Your task to perform on an android device: delete location history Image 0: 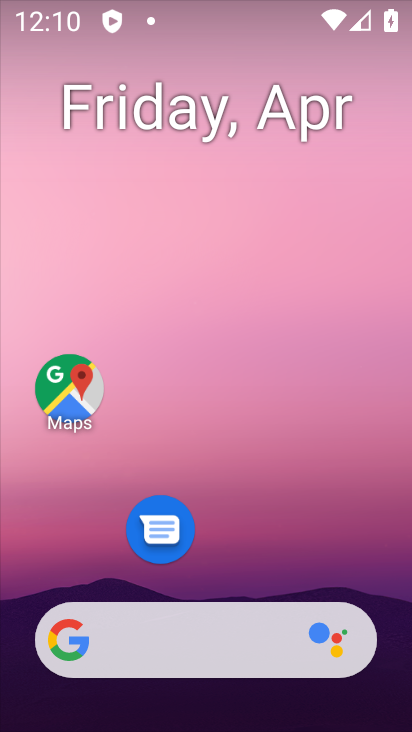
Step 0: click (337, 199)
Your task to perform on an android device: delete location history Image 1: 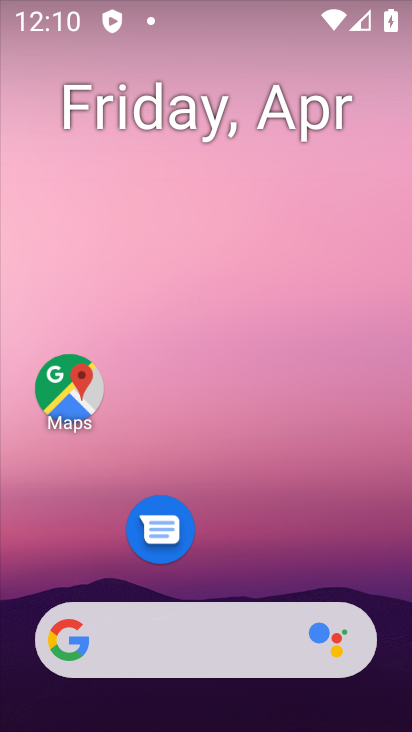
Step 1: drag from (217, 593) to (196, 0)
Your task to perform on an android device: delete location history Image 2: 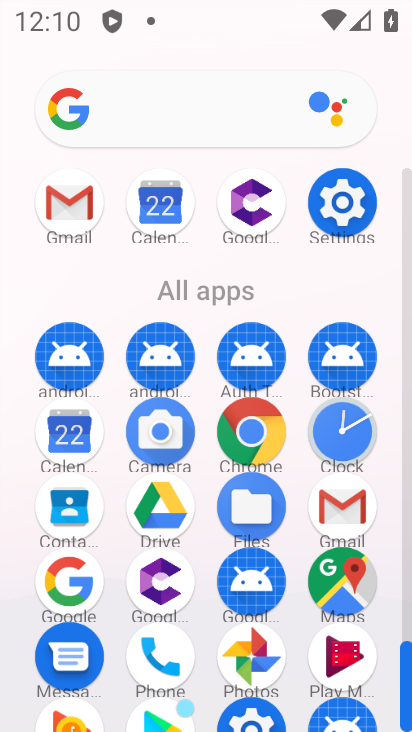
Step 2: click (355, 584)
Your task to perform on an android device: delete location history Image 3: 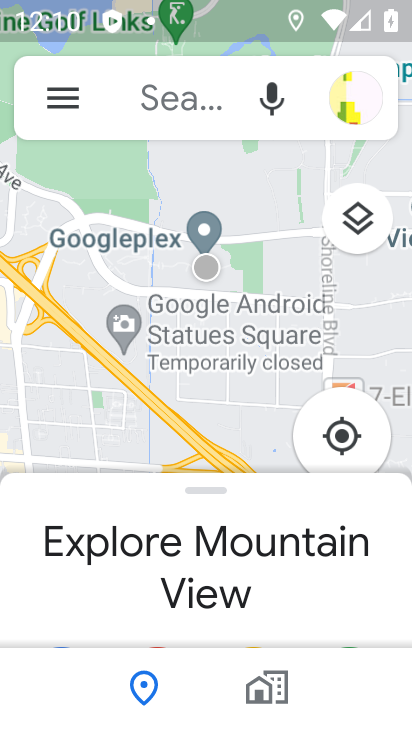
Step 3: click (55, 99)
Your task to perform on an android device: delete location history Image 4: 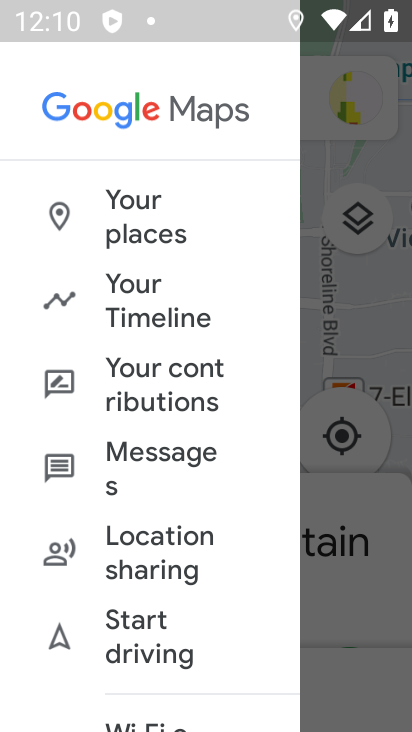
Step 4: click (178, 307)
Your task to perform on an android device: delete location history Image 5: 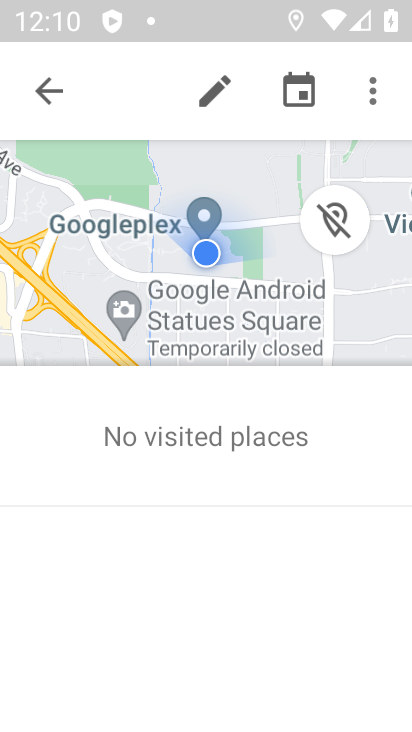
Step 5: click (380, 72)
Your task to perform on an android device: delete location history Image 6: 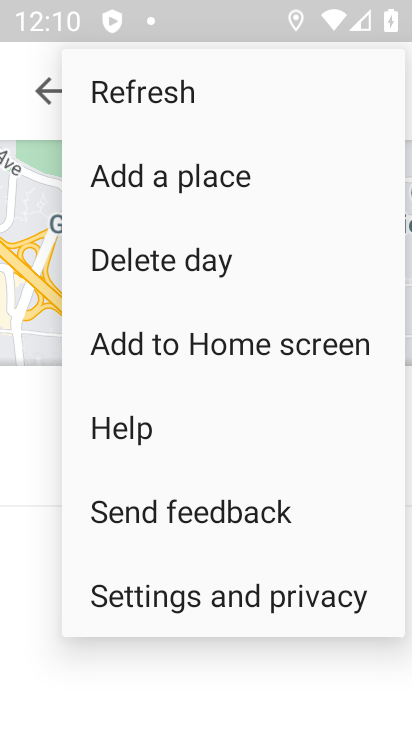
Step 6: click (181, 601)
Your task to perform on an android device: delete location history Image 7: 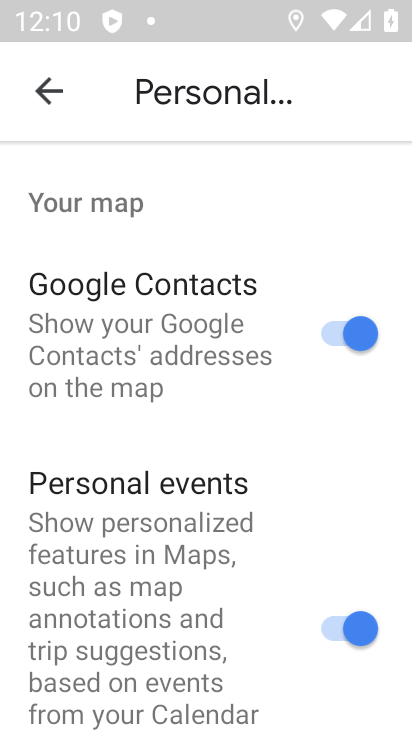
Step 7: drag from (147, 629) to (201, 219)
Your task to perform on an android device: delete location history Image 8: 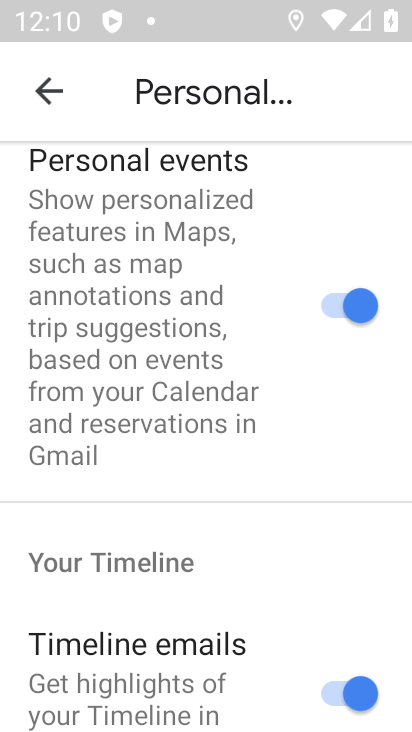
Step 8: drag from (117, 629) to (187, 271)
Your task to perform on an android device: delete location history Image 9: 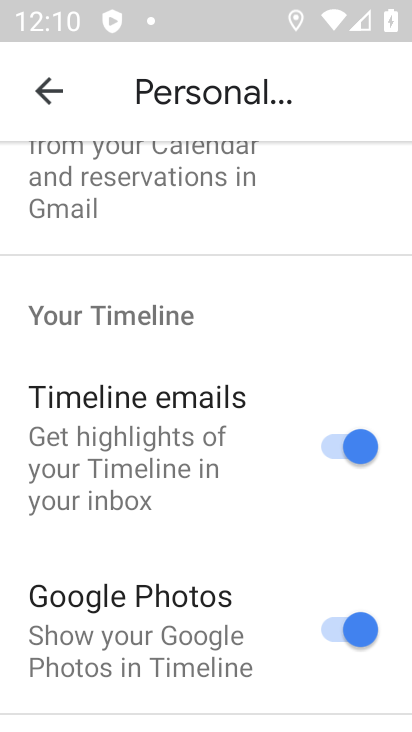
Step 9: drag from (154, 668) to (244, 189)
Your task to perform on an android device: delete location history Image 10: 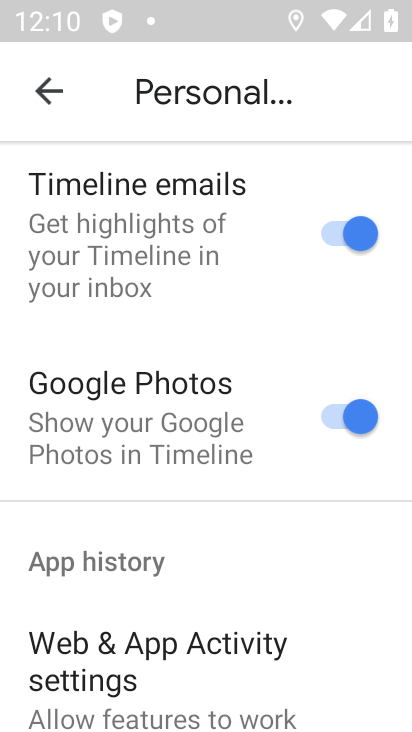
Step 10: drag from (164, 575) to (229, 129)
Your task to perform on an android device: delete location history Image 11: 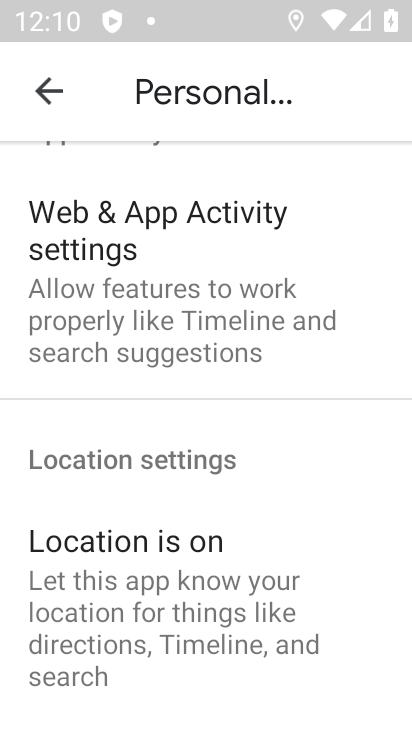
Step 11: drag from (153, 480) to (237, 151)
Your task to perform on an android device: delete location history Image 12: 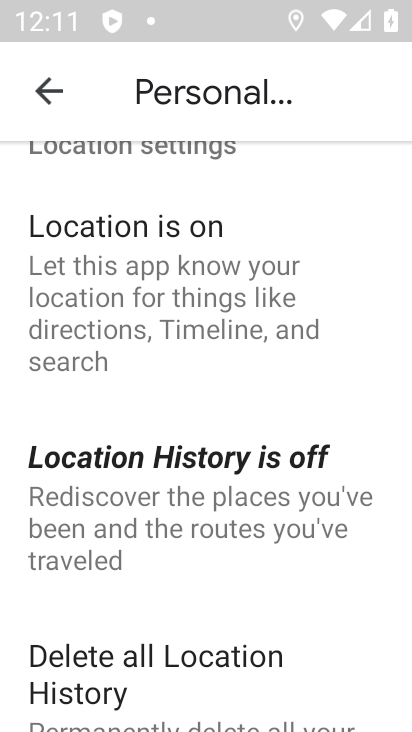
Step 12: click (142, 661)
Your task to perform on an android device: delete location history Image 13: 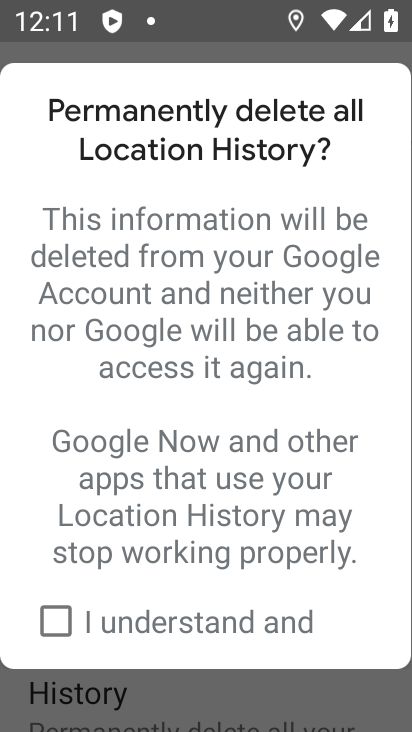
Step 13: click (43, 617)
Your task to perform on an android device: delete location history Image 14: 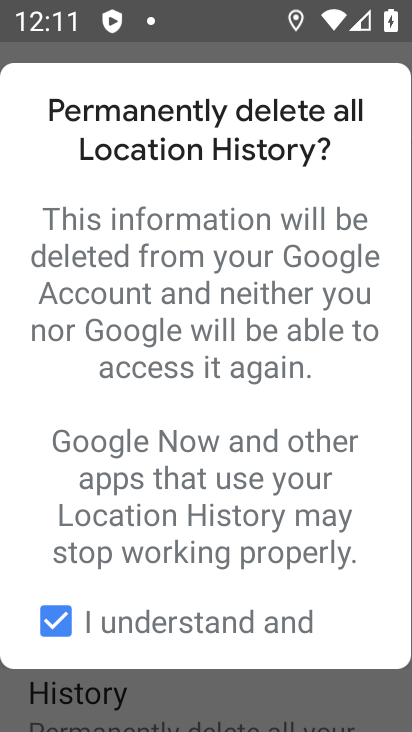
Step 14: drag from (374, 611) to (354, 690)
Your task to perform on an android device: delete location history Image 15: 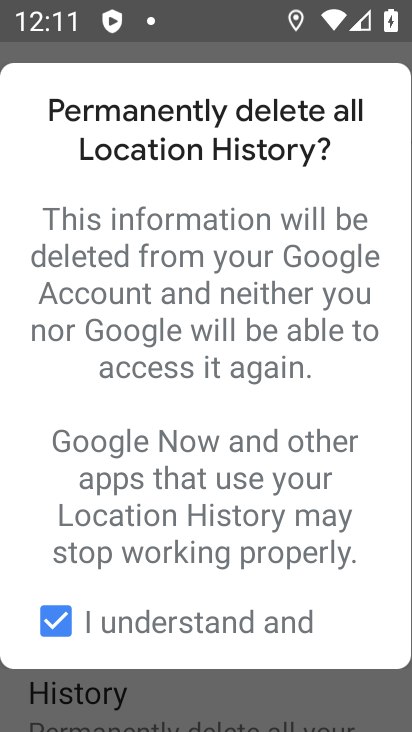
Step 15: drag from (366, 618) to (351, 679)
Your task to perform on an android device: delete location history Image 16: 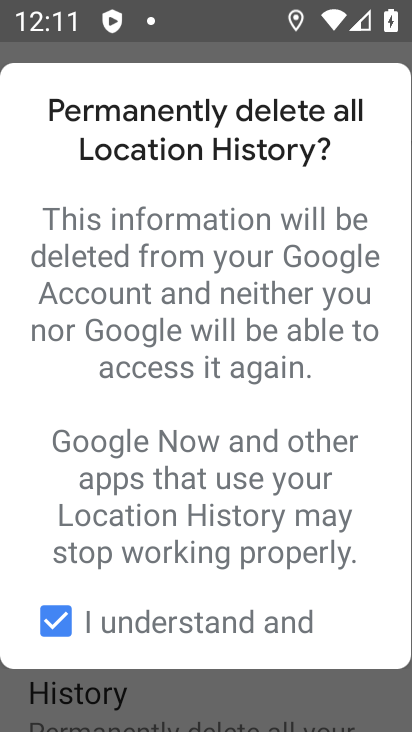
Step 16: drag from (201, 633) to (260, 271)
Your task to perform on an android device: delete location history Image 17: 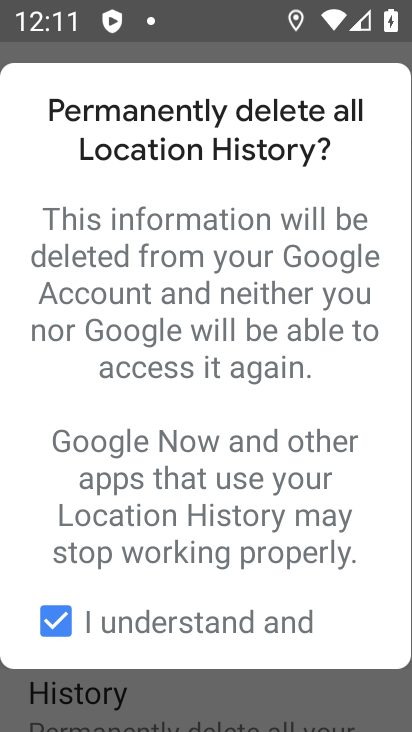
Step 17: drag from (225, 478) to (271, 261)
Your task to perform on an android device: delete location history Image 18: 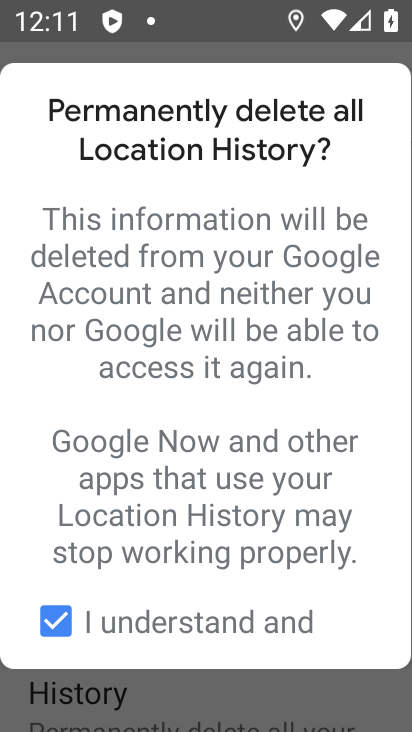
Step 18: click (212, 506)
Your task to perform on an android device: delete location history Image 19: 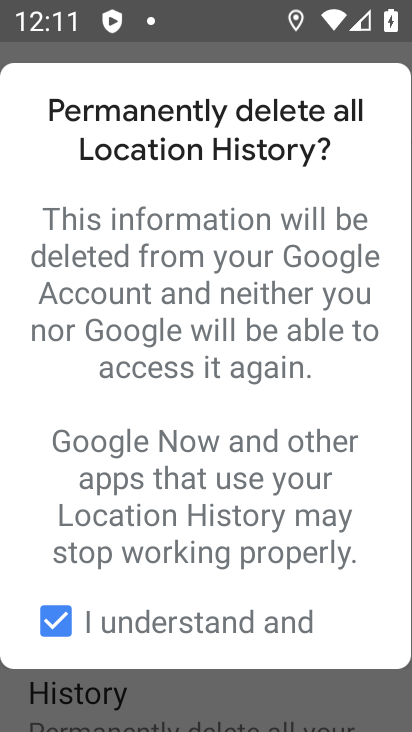
Step 19: click (64, 622)
Your task to perform on an android device: delete location history Image 20: 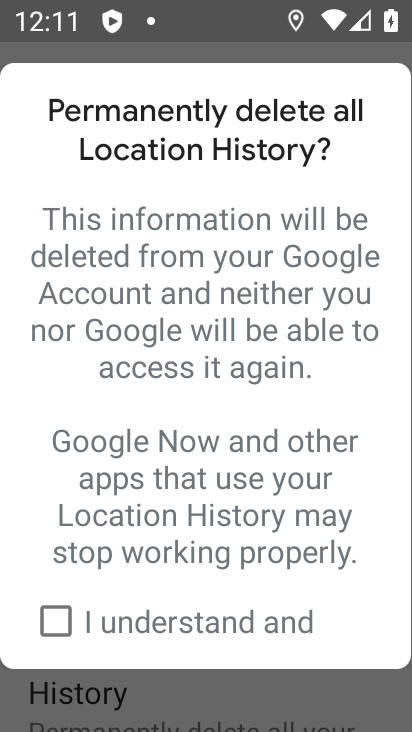
Step 20: click (103, 685)
Your task to perform on an android device: delete location history Image 21: 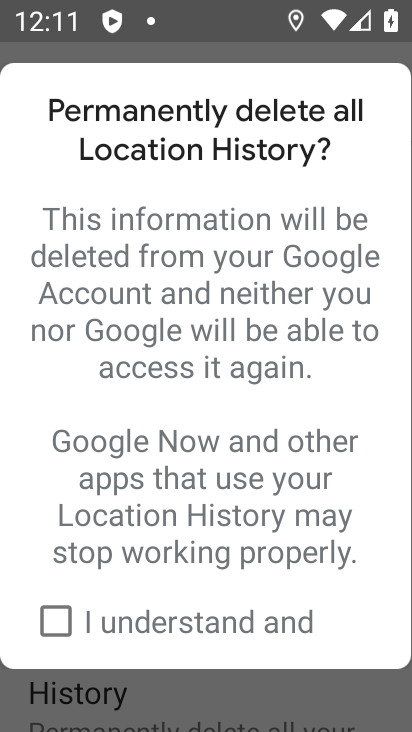
Step 21: press back button
Your task to perform on an android device: delete location history Image 22: 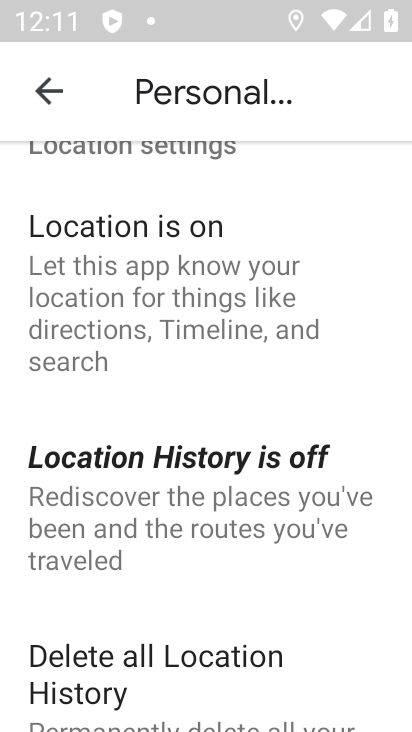
Step 22: click (158, 668)
Your task to perform on an android device: delete location history Image 23: 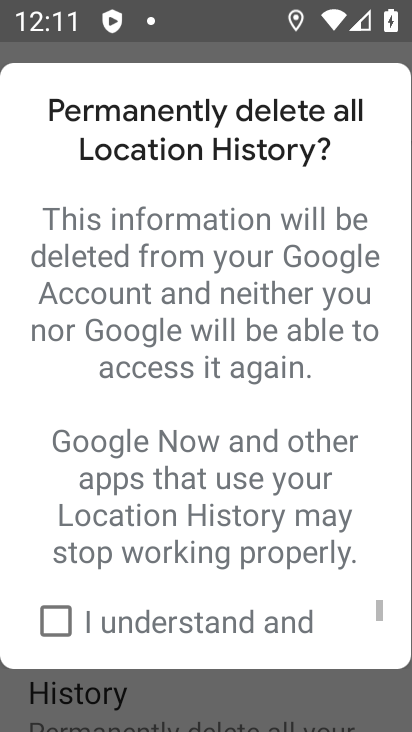
Step 23: drag from (382, 607) to (364, 683)
Your task to perform on an android device: delete location history Image 24: 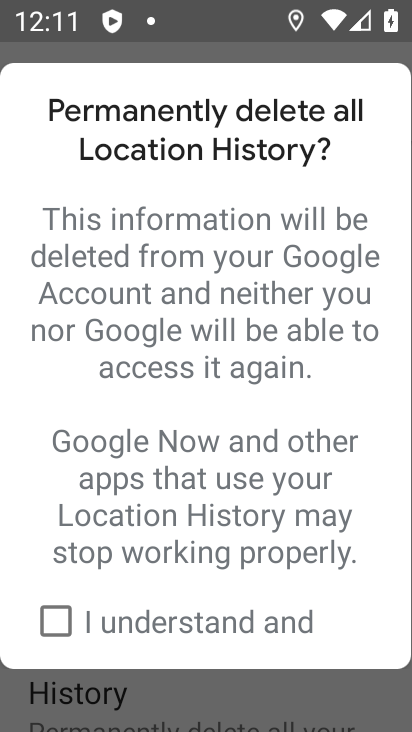
Step 24: click (379, 648)
Your task to perform on an android device: delete location history Image 25: 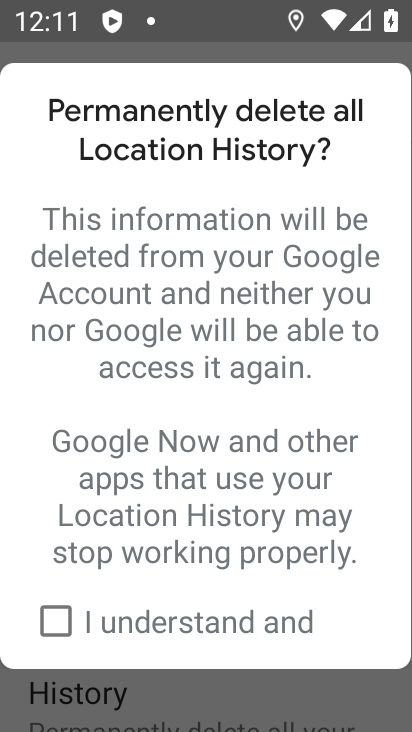
Step 25: click (378, 650)
Your task to perform on an android device: delete location history Image 26: 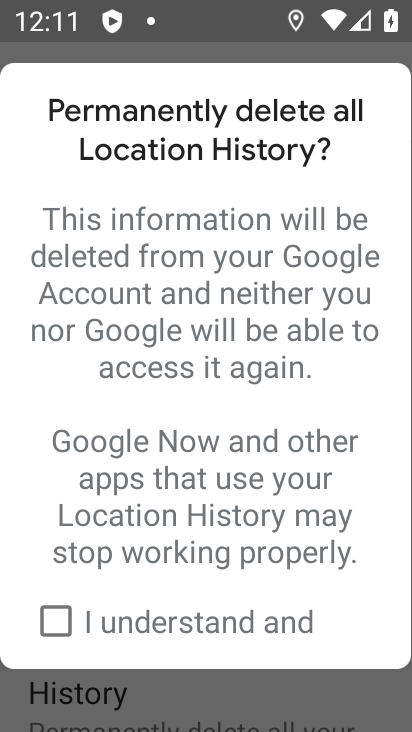
Step 26: click (377, 650)
Your task to perform on an android device: delete location history Image 27: 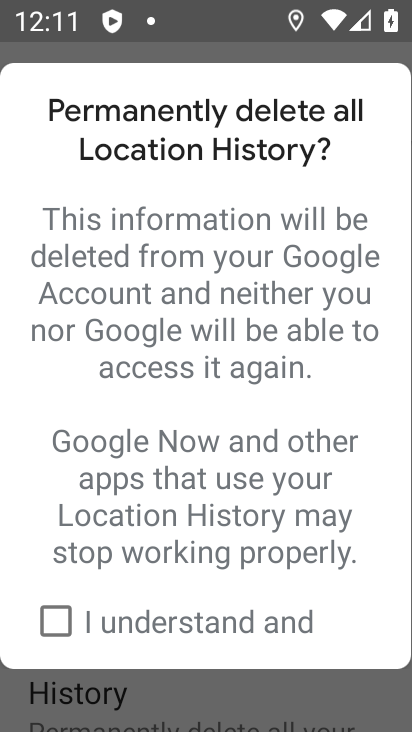
Step 27: click (374, 666)
Your task to perform on an android device: delete location history Image 28: 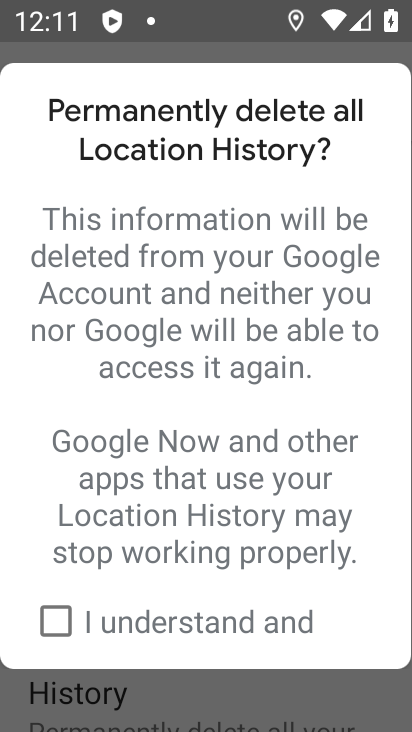
Step 28: drag from (358, 659) to (353, 714)
Your task to perform on an android device: delete location history Image 29: 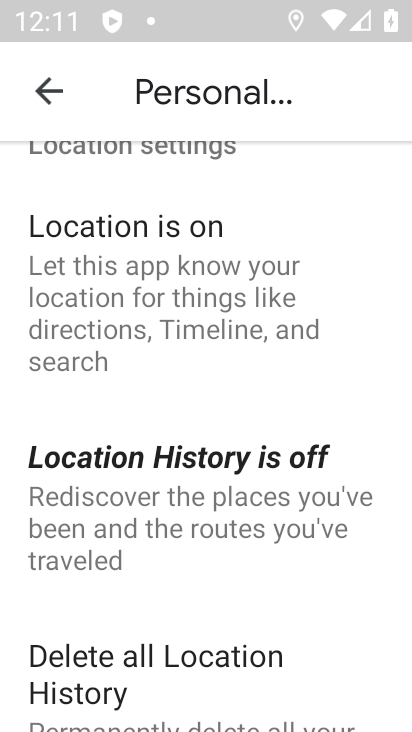
Step 29: click (40, 617)
Your task to perform on an android device: delete location history Image 30: 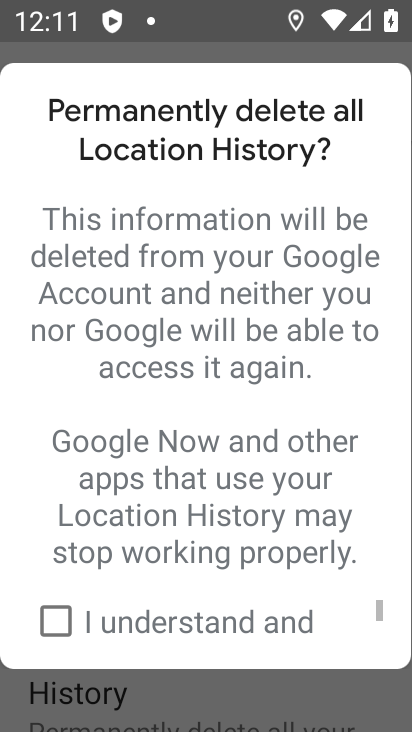
Step 30: click (76, 609)
Your task to perform on an android device: delete location history Image 31: 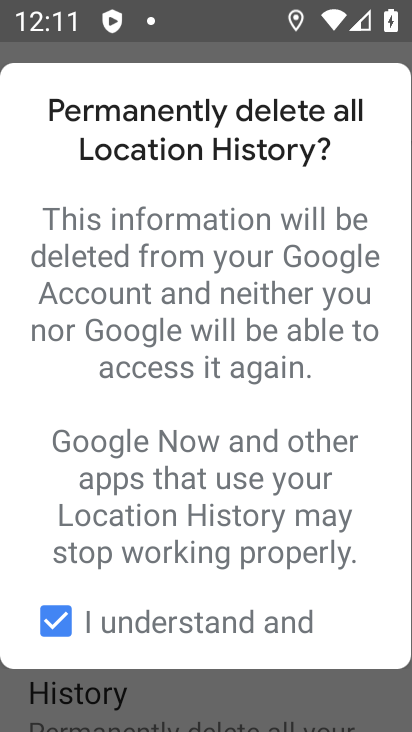
Step 31: click (288, 636)
Your task to perform on an android device: delete location history Image 32: 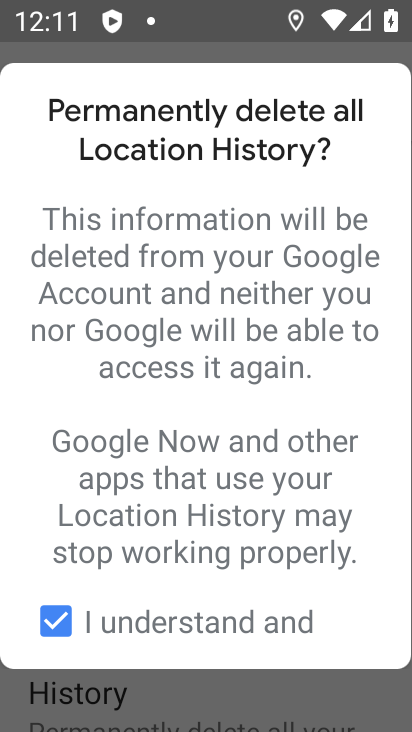
Step 32: click (288, 636)
Your task to perform on an android device: delete location history Image 33: 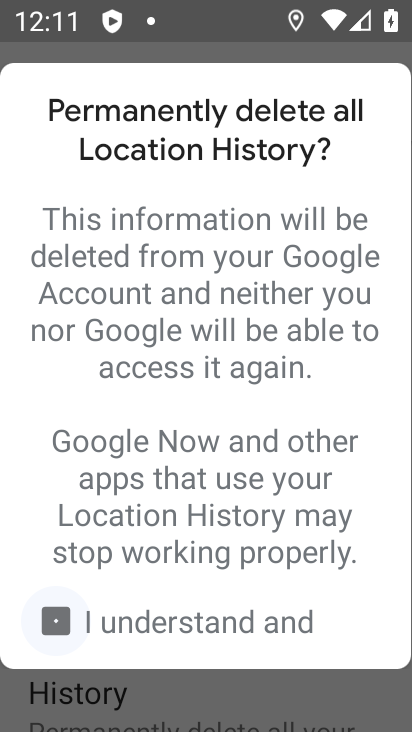
Step 33: click (288, 636)
Your task to perform on an android device: delete location history Image 34: 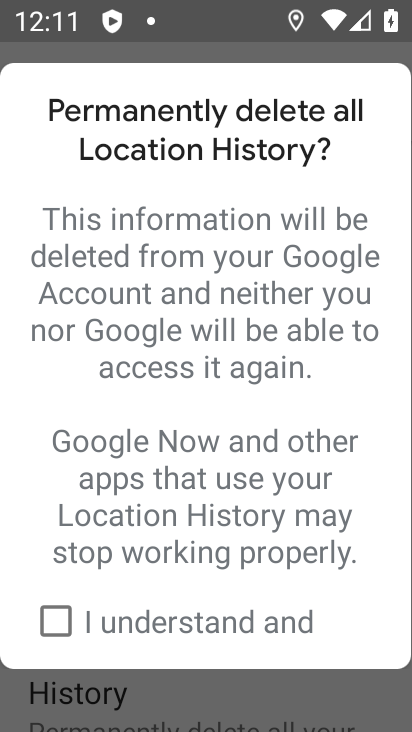
Step 34: task complete